Your task to perform on an android device: Search for seafood restaurants on Google Maps Image 0: 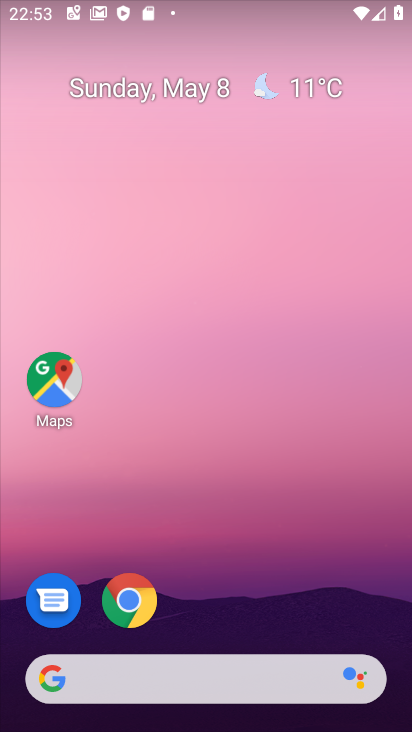
Step 0: click (71, 381)
Your task to perform on an android device: Search for seafood restaurants on Google Maps Image 1: 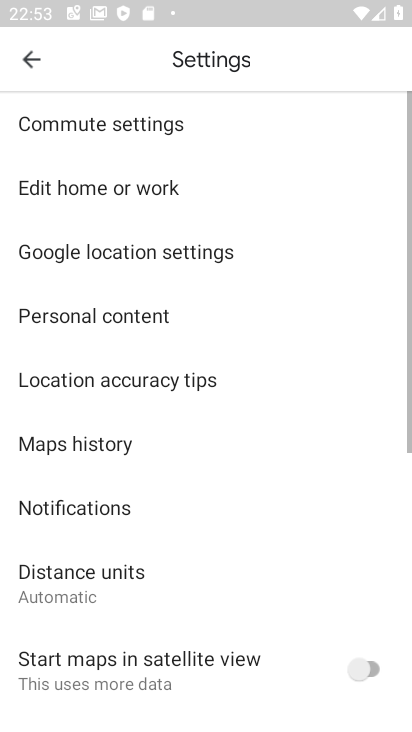
Step 1: click (30, 55)
Your task to perform on an android device: Search for seafood restaurants on Google Maps Image 2: 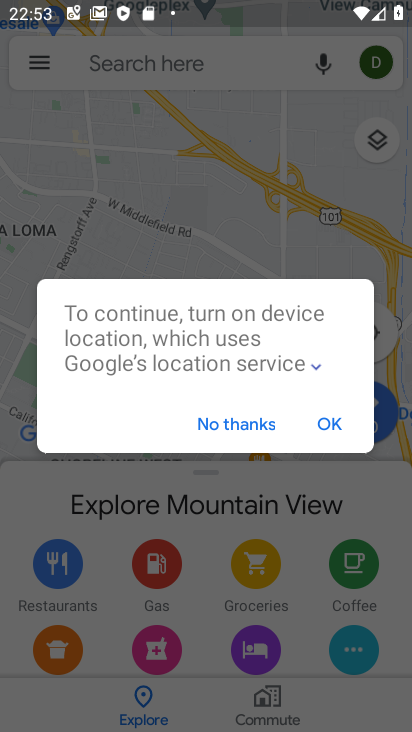
Step 2: click (341, 422)
Your task to perform on an android device: Search for seafood restaurants on Google Maps Image 3: 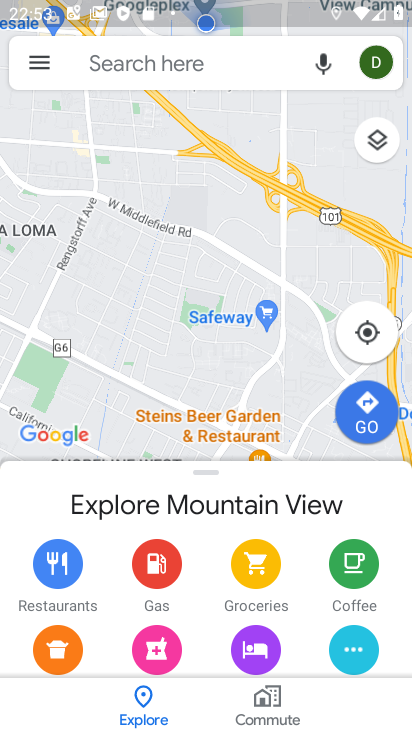
Step 3: click (154, 63)
Your task to perform on an android device: Search for seafood restaurants on Google Maps Image 4: 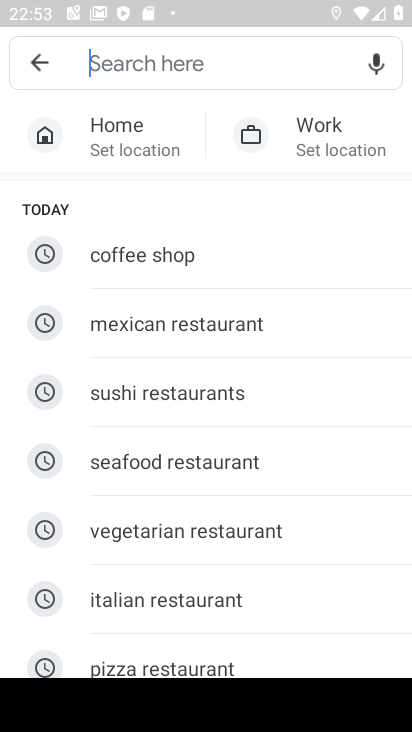
Step 4: click (177, 484)
Your task to perform on an android device: Search for seafood restaurants on Google Maps Image 5: 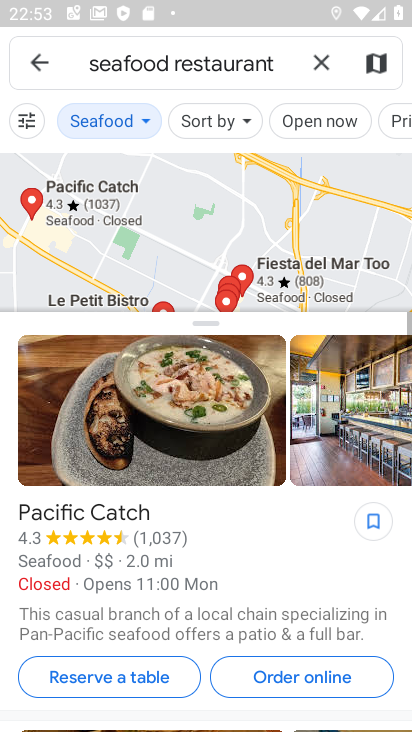
Step 5: task complete